Your task to perform on an android device: Open Google Chrome and open the bookmarks view Image 0: 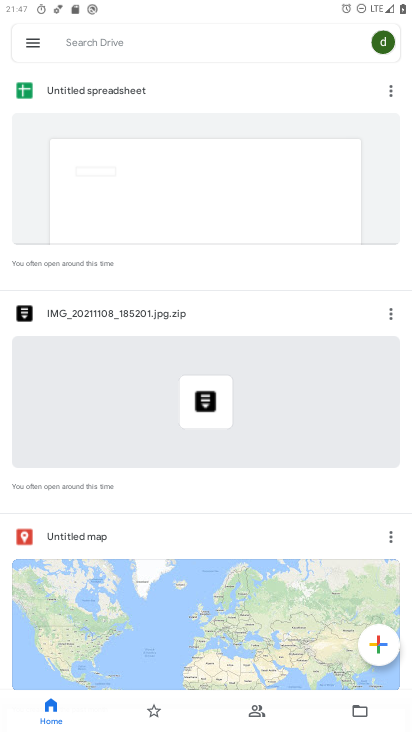
Step 0: drag from (193, 663) to (329, 356)
Your task to perform on an android device: Open Google Chrome and open the bookmarks view Image 1: 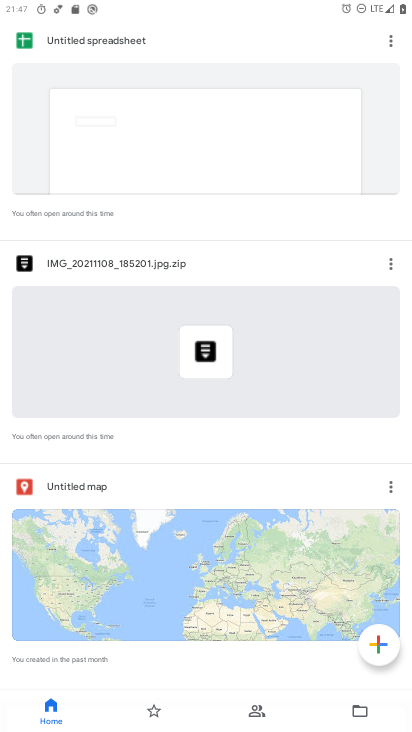
Step 1: drag from (220, 612) to (226, 282)
Your task to perform on an android device: Open Google Chrome and open the bookmarks view Image 2: 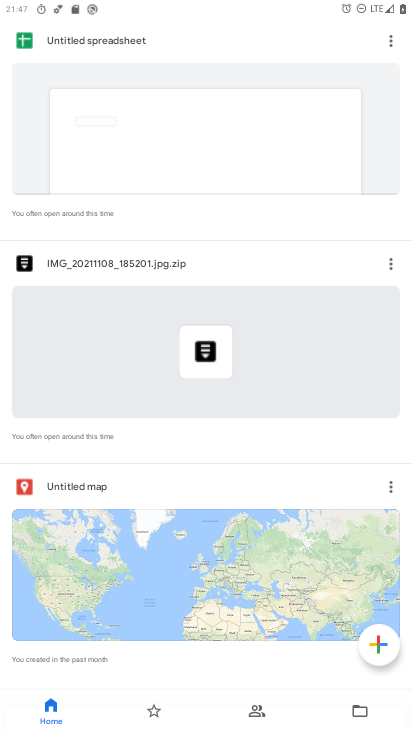
Step 2: drag from (192, 624) to (233, 218)
Your task to perform on an android device: Open Google Chrome and open the bookmarks view Image 3: 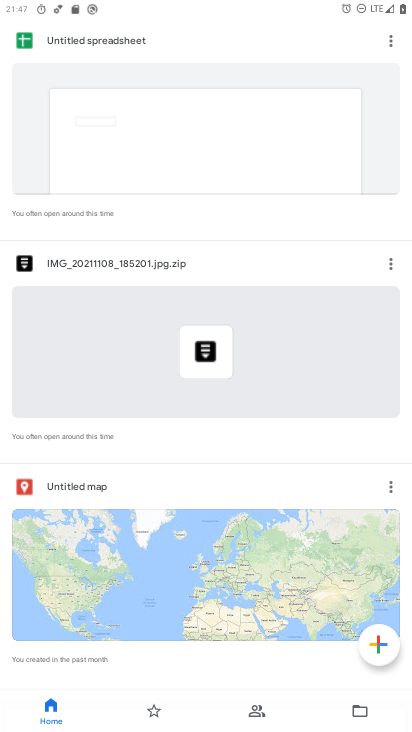
Step 3: press home button
Your task to perform on an android device: Open Google Chrome and open the bookmarks view Image 4: 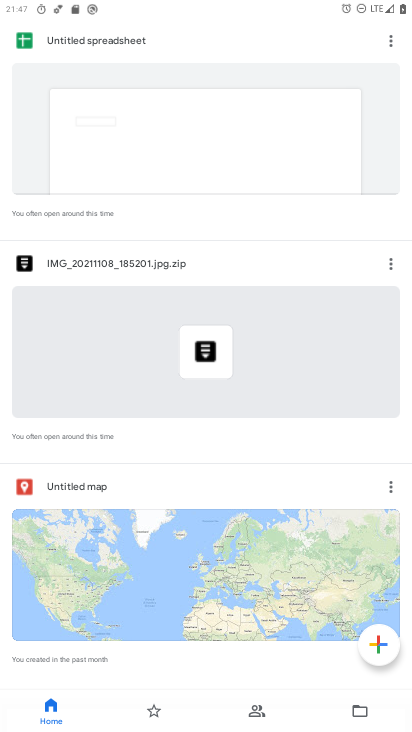
Step 4: press home button
Your task to perform on an android device: Open Google Chrome and open the bookmarks view Image 5: 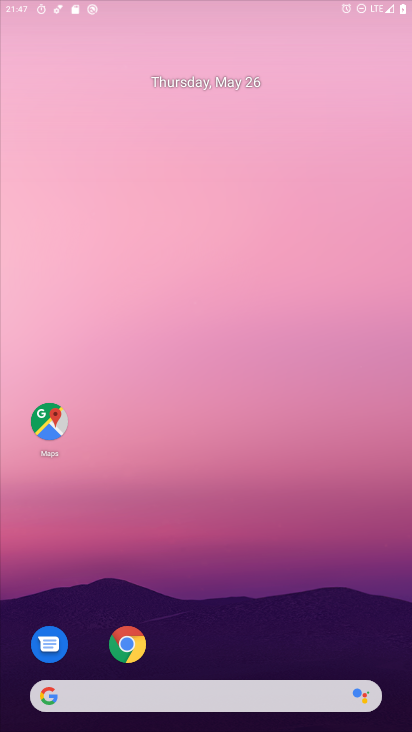
Step 5: drag from (175, 571) to (286, 105)
Your task to perform on an android device: Open Google Chrome and open the bookmarks view Image 6: 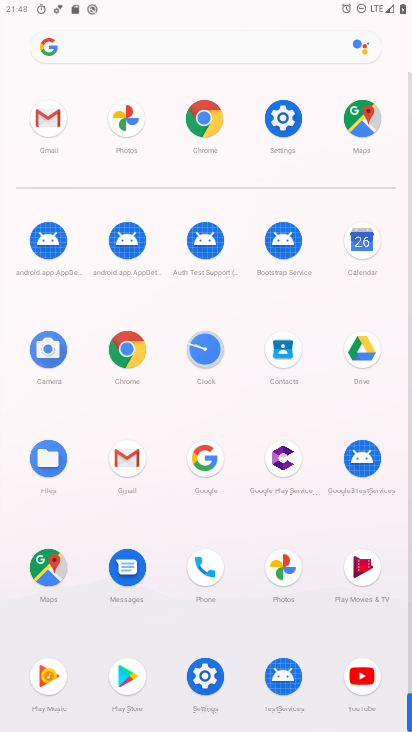
Step 6: click (128, 341)
Your task to perform on an android device: Open Google Chrome and open the bookmarks view Image 7: 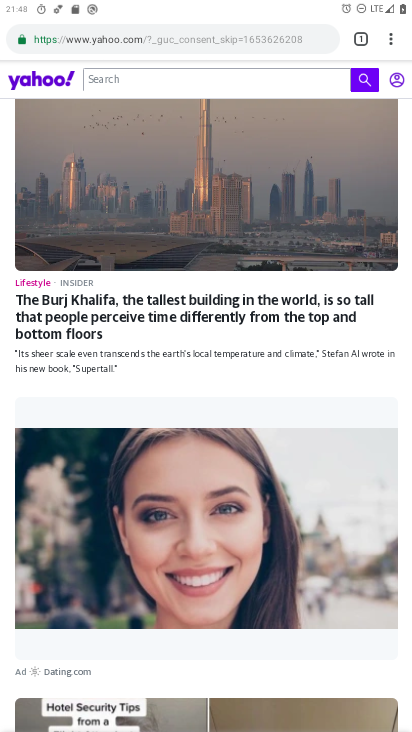
Step 7: task complete